Your task to perform on an android device: set an alarm Image 0: 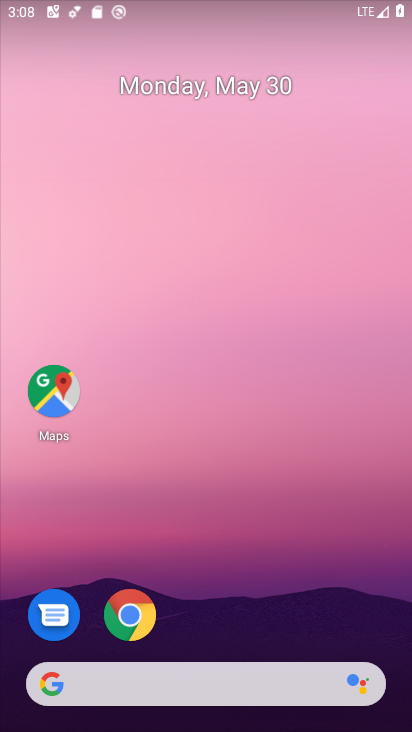
Step 0: drag from (226, 587) to (237, 25)
Your task to perform on an android device: set an alarm Image 1: 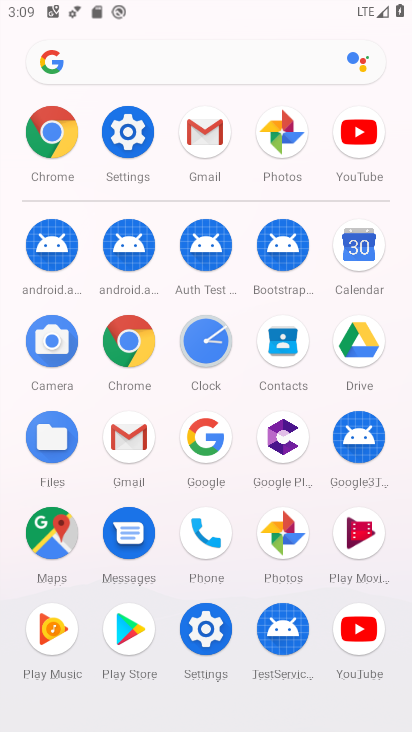
Step 1: click (204, 342)
Your task to perform on an android device: set an alarm Image 2: 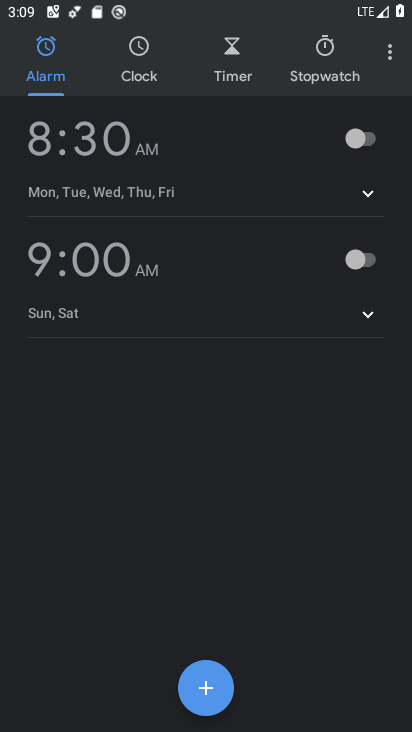
Step 2: click (205, 686)
Your task to perform on an android device: set an alarm Image 3: 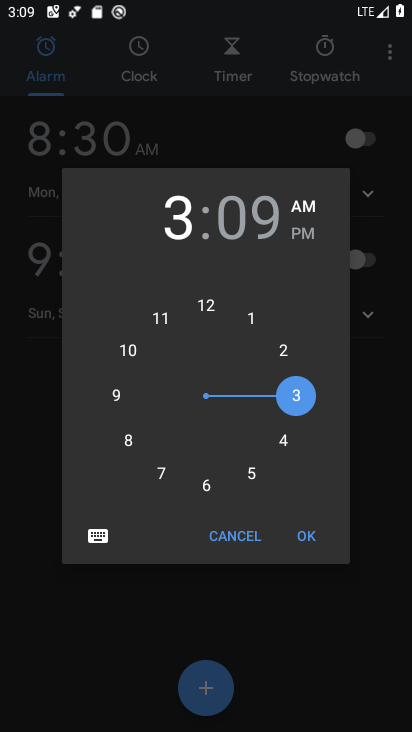
Step 3: click (244, 226)
Your task to perform on an android device: set an alarm Image 4: 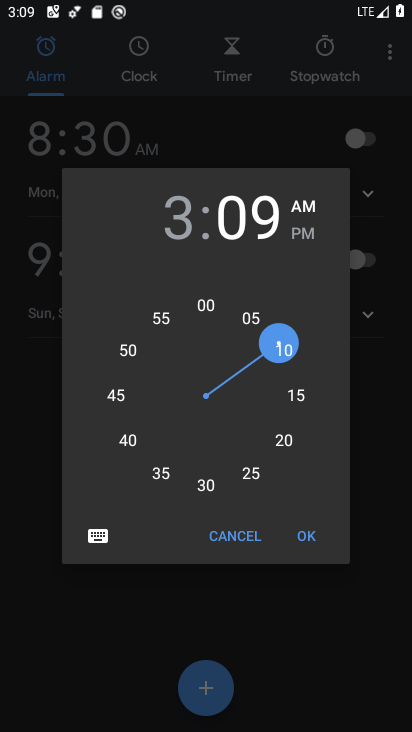
Step 4: click (209, 305)
Your task to perform on an android device: set an alarm Image 5: 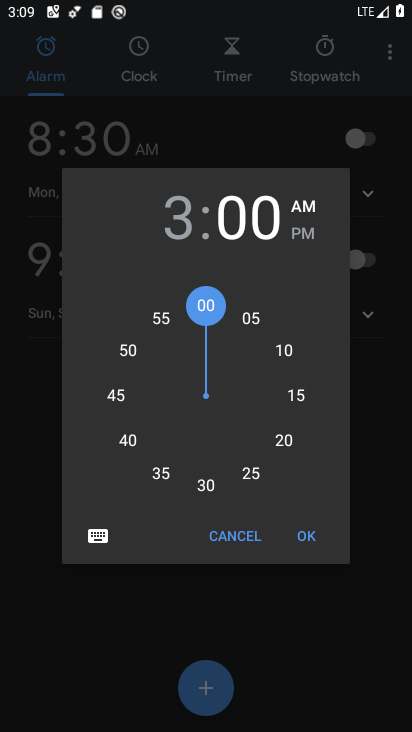
Step 5: click (308, 231)
Your task to perform on an android device: set an alarm Image 6: 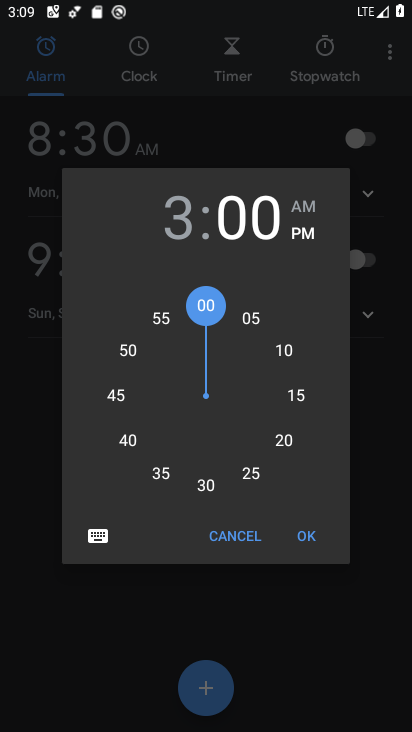
Step 6: click (308, 532)
Your task to perform on an android device: set an alarm Image 7: 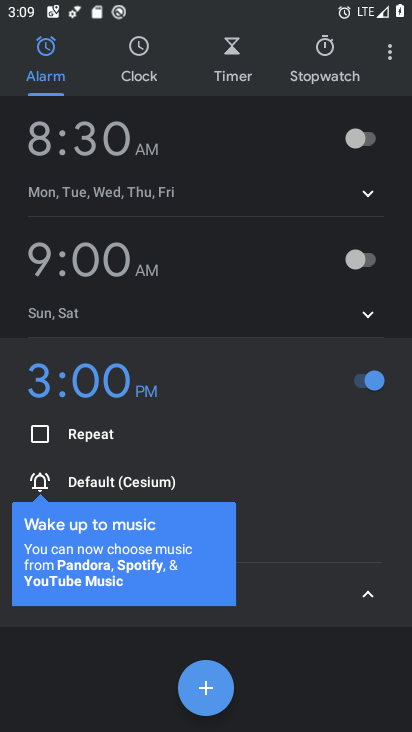
Step 7: task complete